Your task to perform on an android device: Go to calendar. Show me events next week Image 0: 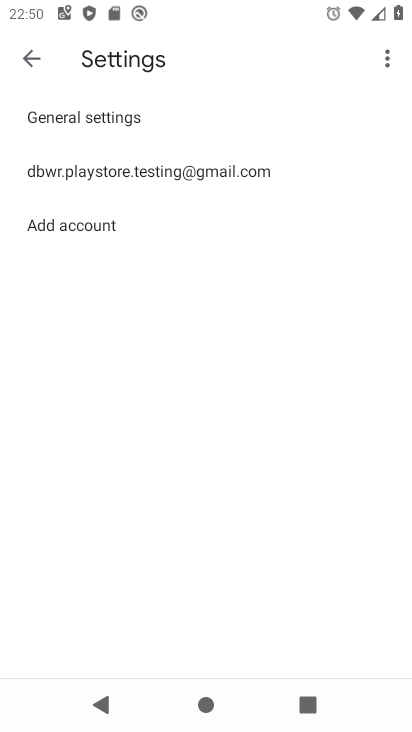
Step 0: press home button
Your task to perform on an android device: Go to calendar. Show me events next week Image 1: 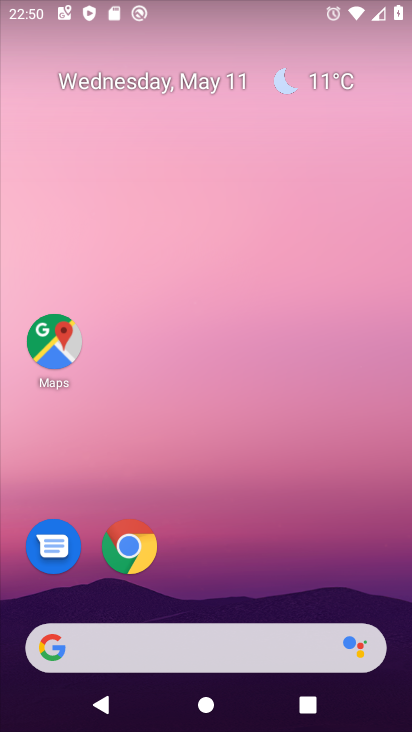
Step 1: drag from (400, 627) to (292, 76)
Your task to perform on an android device: Go to calendar. Show me events next week Image 2: 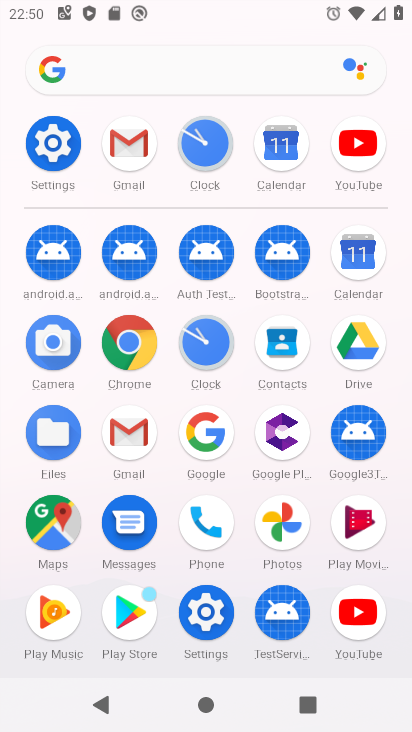
Step 2: click (357, 249)
Your task to perform on an android device: Go to calendar. Show me events next week Image 3: 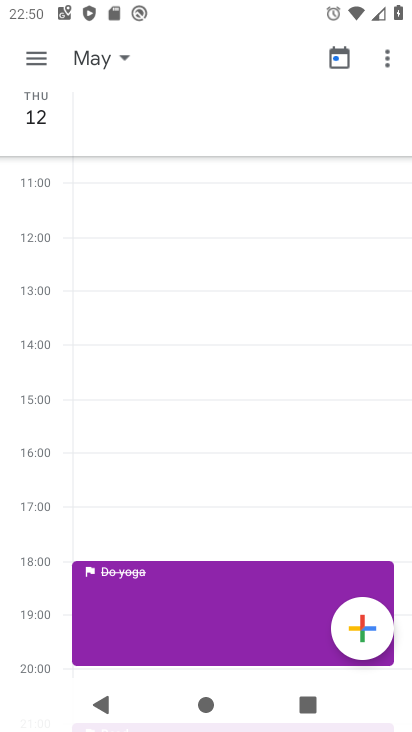
Step 3: click (33, 56)
Your task to perform on an android device: Go to calendar. Show me events next week Image 4: 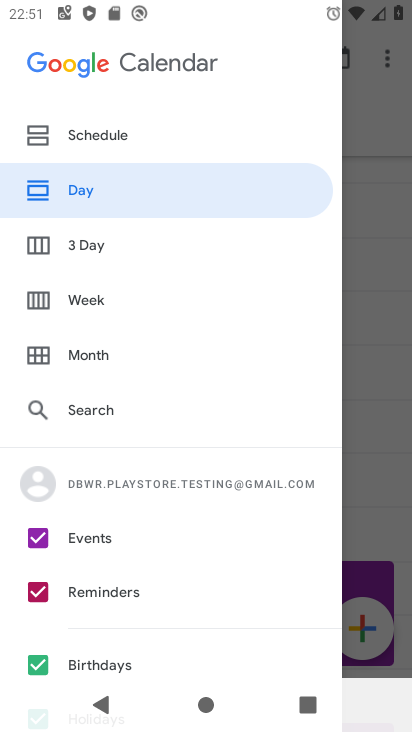
Step 4: click (79, 300)
Your task to perform on an android device: Go to calendar. Show me events next week Image 5: 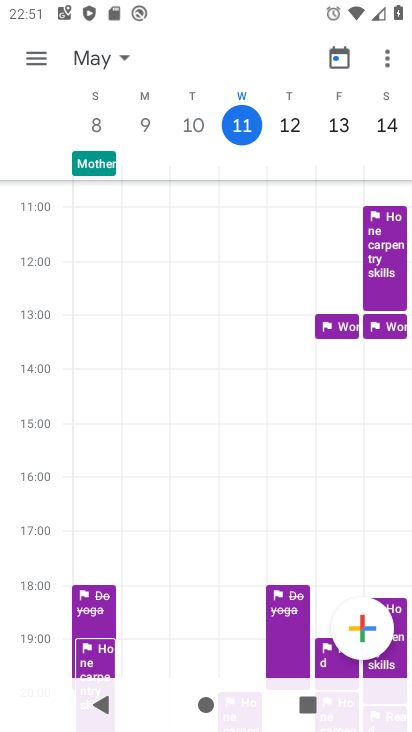
Step 5: task complete